Your task to perform on an android device: change keyboard looks Image 0: 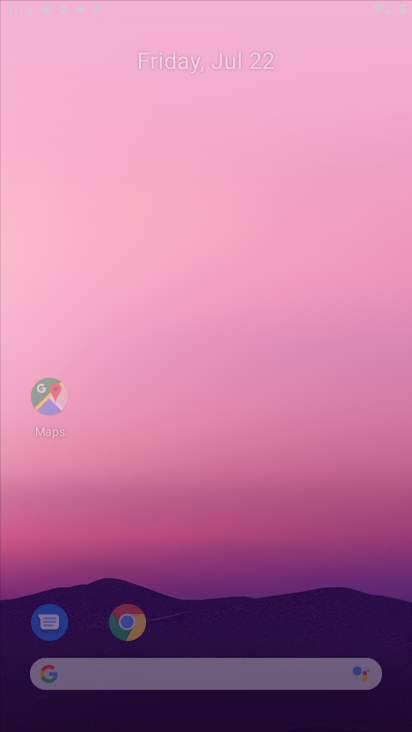
Step 0: click (255, 30)
Your task to perform on an android device: change keyboard looks Image 1: 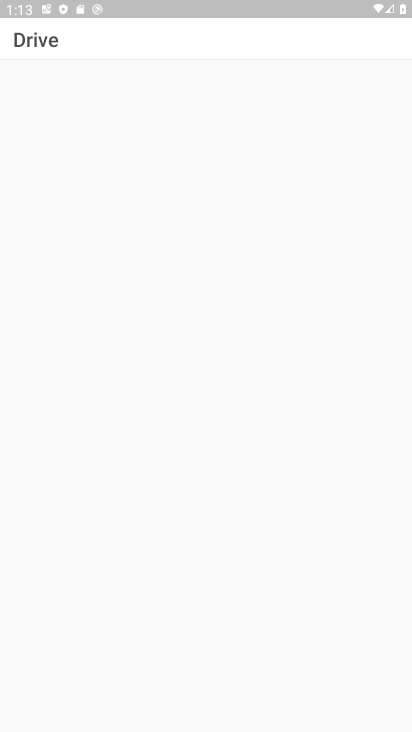
Step 1: drag from (230, 657) to (248, 46)
Your task to perform on an android device: change keyboard looks Image 2: 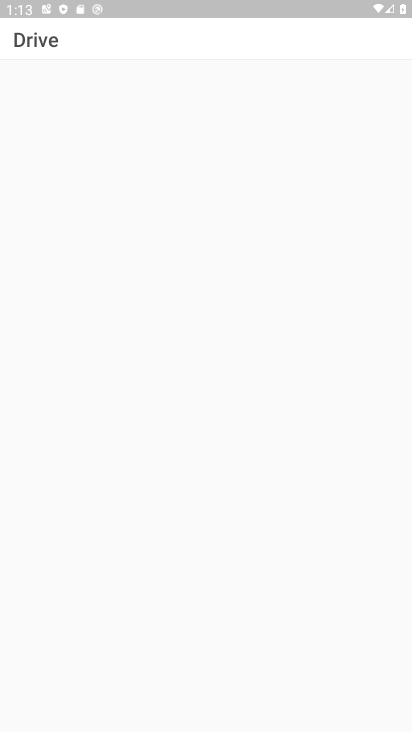
Step 2: press home button
Your task to perform on an android device: change keyboard looks Image 3: 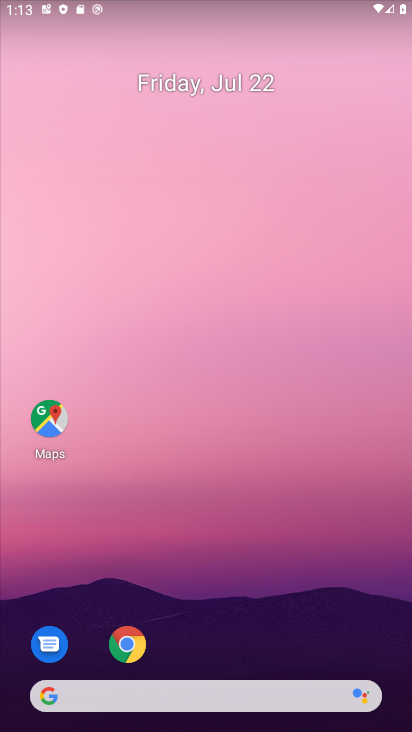
Step 3: drag from (211, 427) to (254, 26)
Your task to perform on an android device: change keyboard looks Image 4: 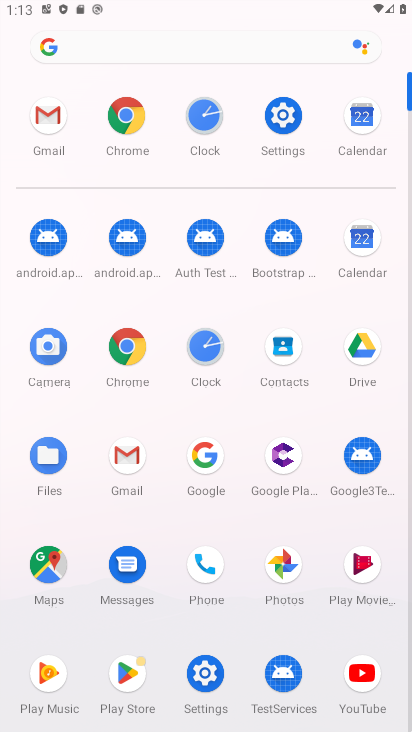
Step 4: click (284, 115)
Your task to perform on an android device: change keyboard looks Image 5: 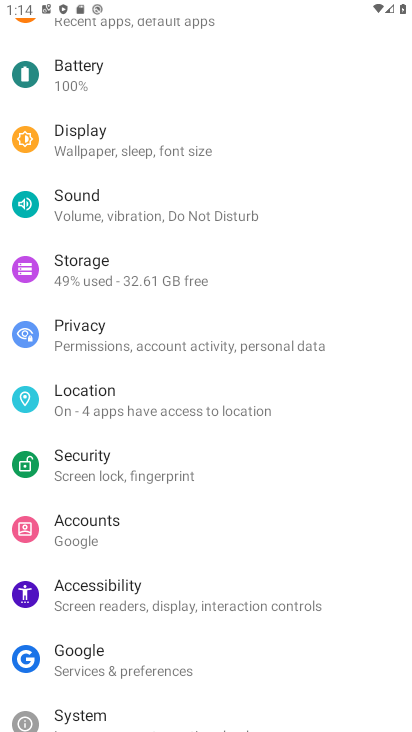
Step 5: click (129, 714)
Your task to perform on an android device: change keyboard looks Image 6: 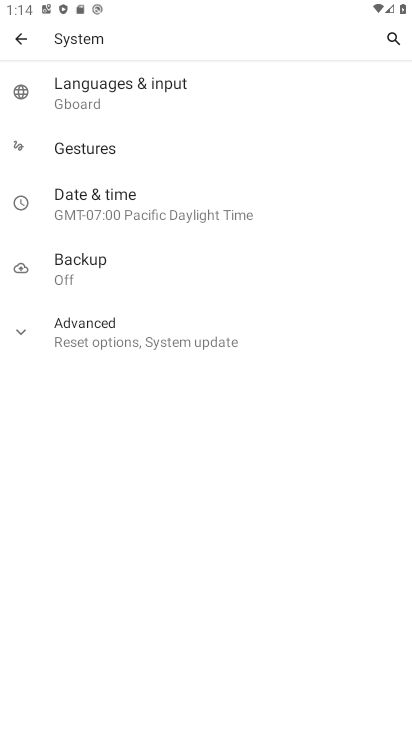
Step 6: click (24, 329)
Your task to perform on an android device: change keyboard looks Image 7: 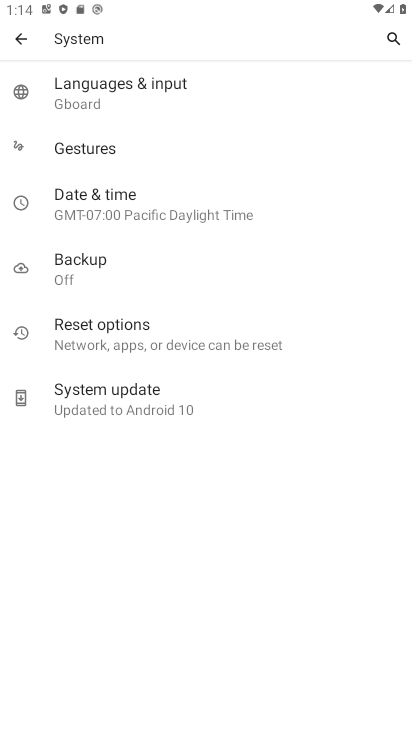
Step 7: click (123, 90)
Your task to perform on an android device: change keyboard looks Image 8: 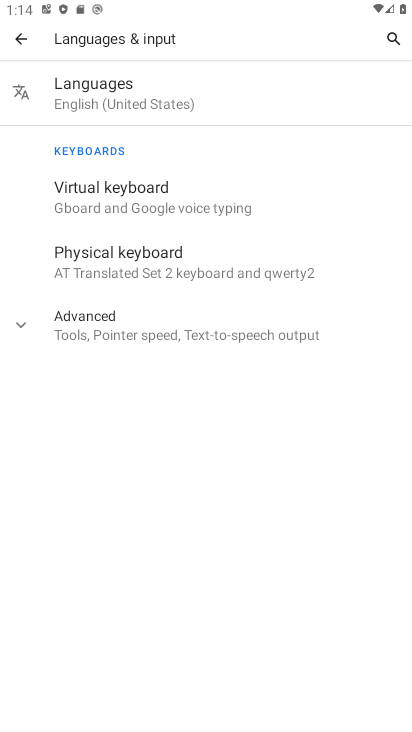
Step 8: click (20, 320)
Your task to perform on an android device: change keyboard looks Image 9: 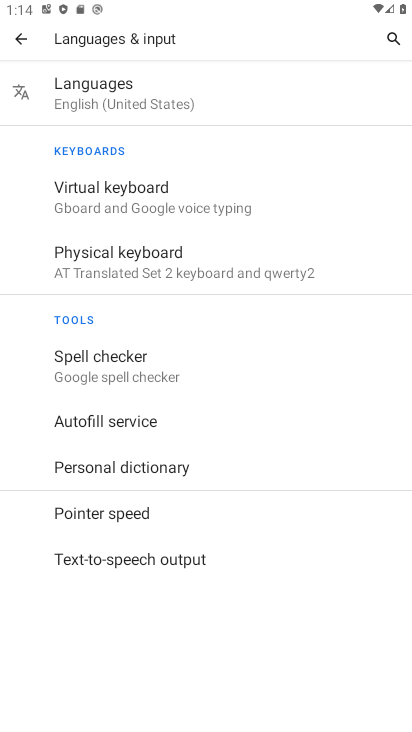
Step 9: click (177, 187)
Your task to perform on an android device: change keyboard looks Image 10: 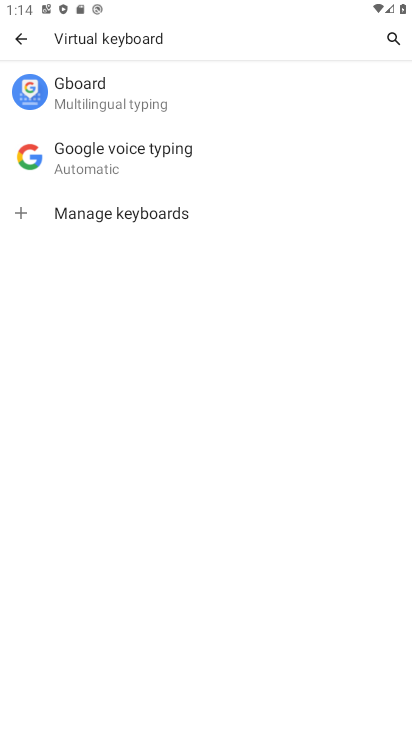
Step 10: click (122, 94)
Your task to perform on an android device: change keyboard looks Image 11: 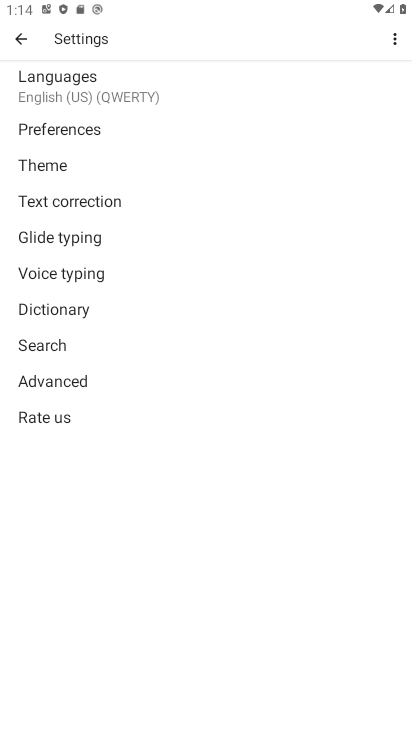
Step 11: click (78, 169)
Your task to perform on an android device: change keyboard looks Image 12: 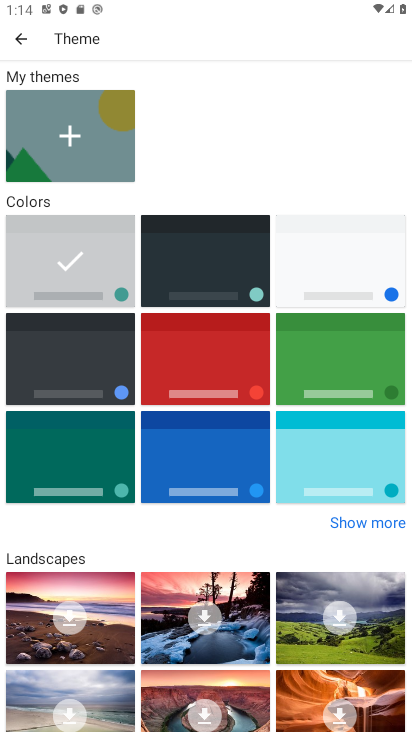
Step 12: click (212, 354)
Your task to perform on an android device: change keyboard looks Image 13: 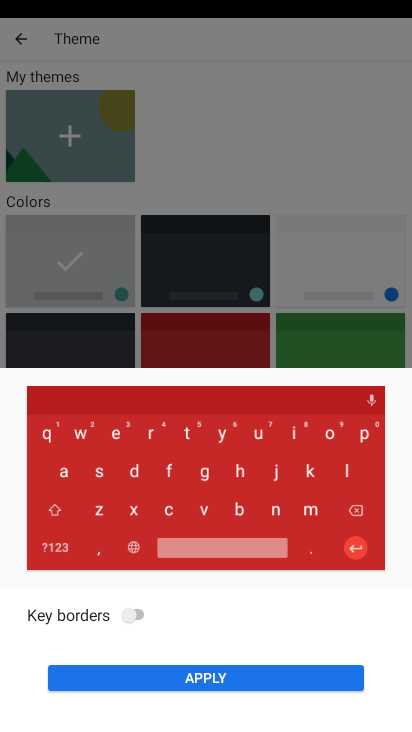
Step 13: click (198, 677)
Your task to perform on an android device: change keyboard looks Image 14: 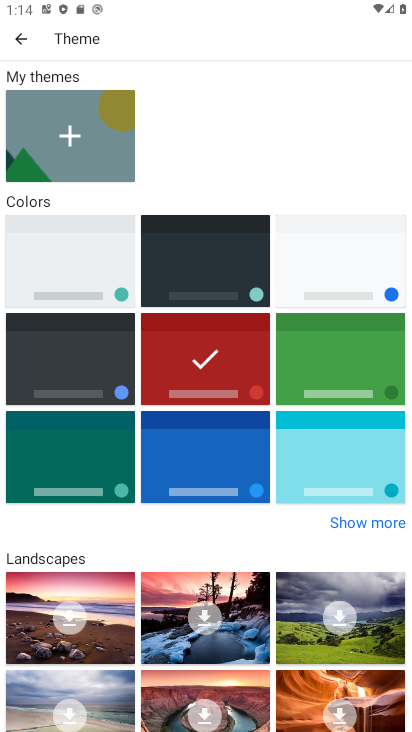
Step 14: task complete